Your task to perform on an android device: add a contact in the contacts app Image 0: 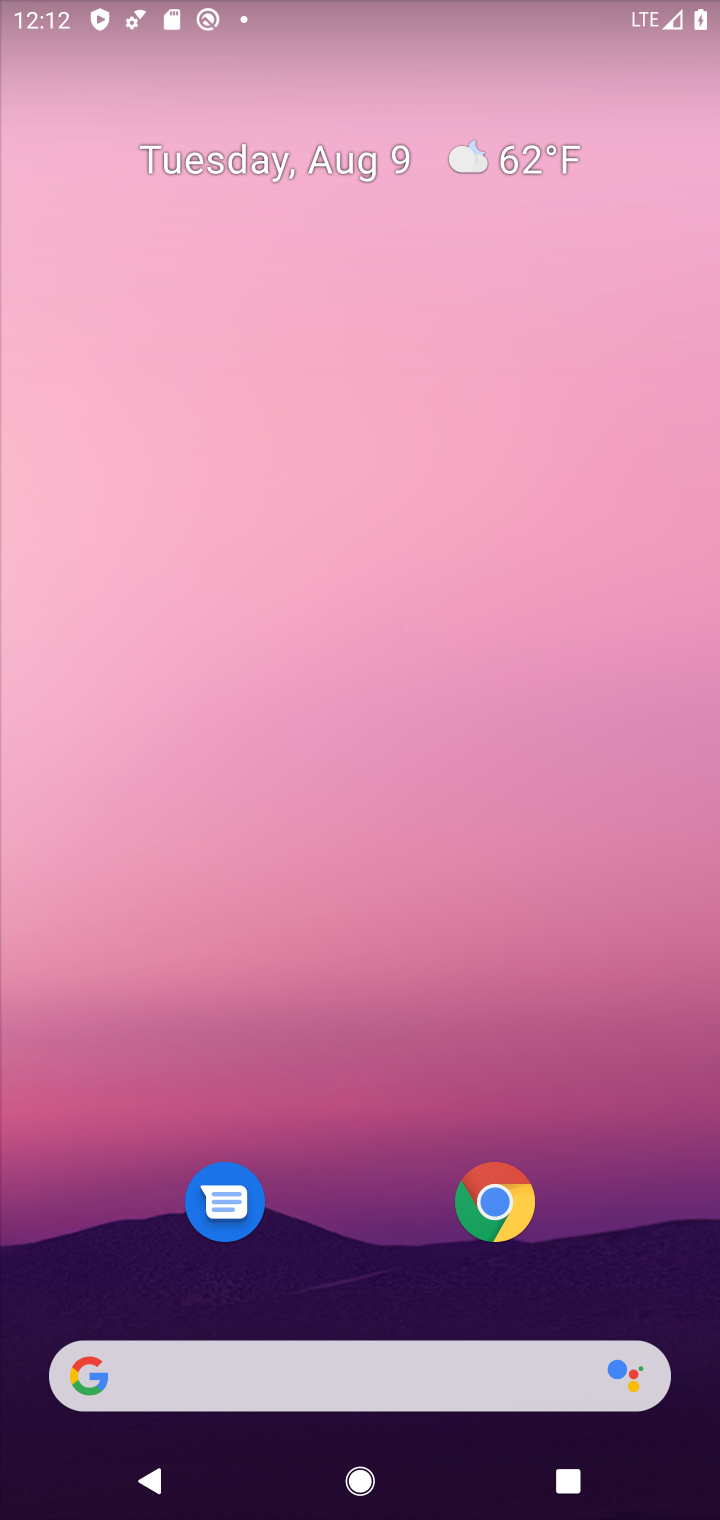
Step 0: drag from (326, 1089) to (222, 363)
Your task to perform on an android device: add a contact in the contacts app Image 1: 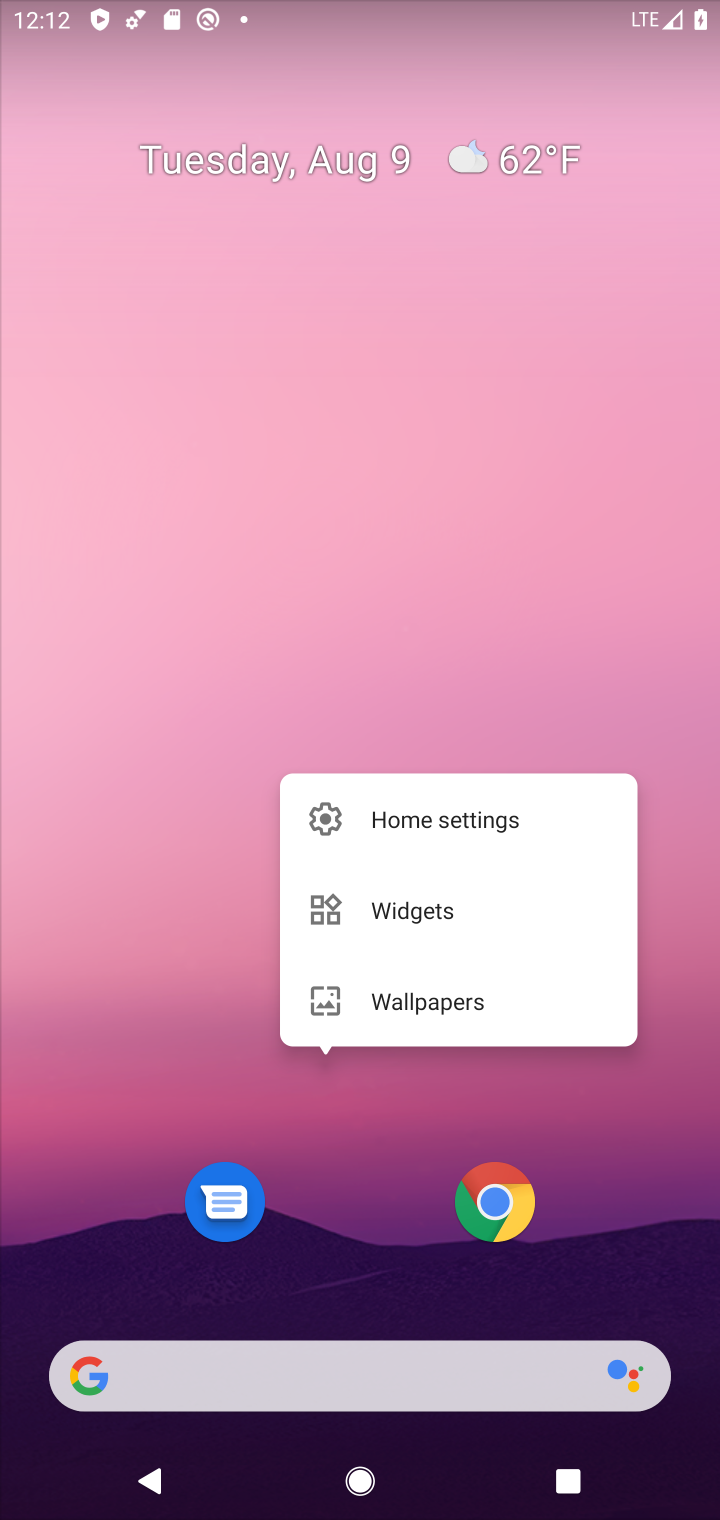
Step 1: click (414, 1237)
Your task to perform on an android device: add a contact in the contacts app Image 2: 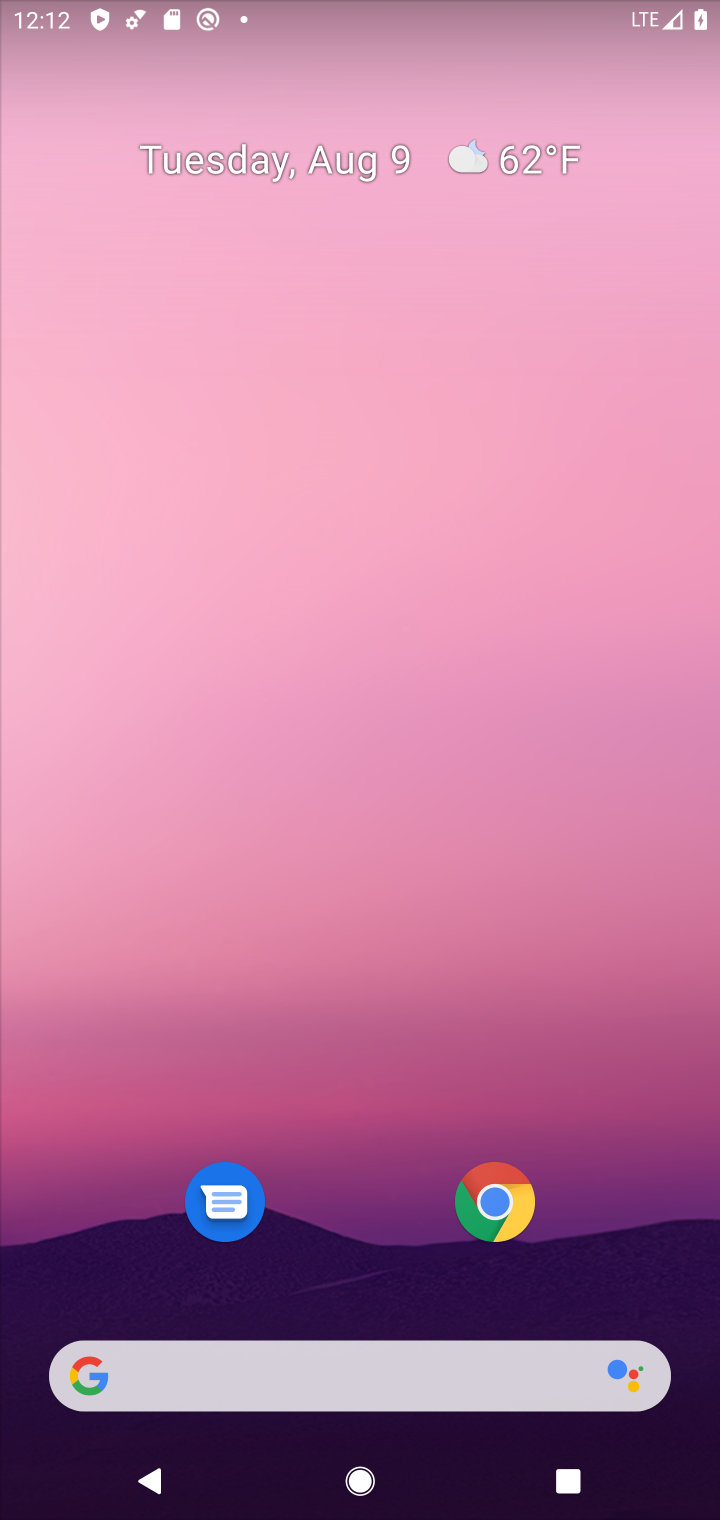
Step 2: drag from (390, 1189) to (218, 33)
Your task to perform on an android device: add a contact in the contacts app Image 3: 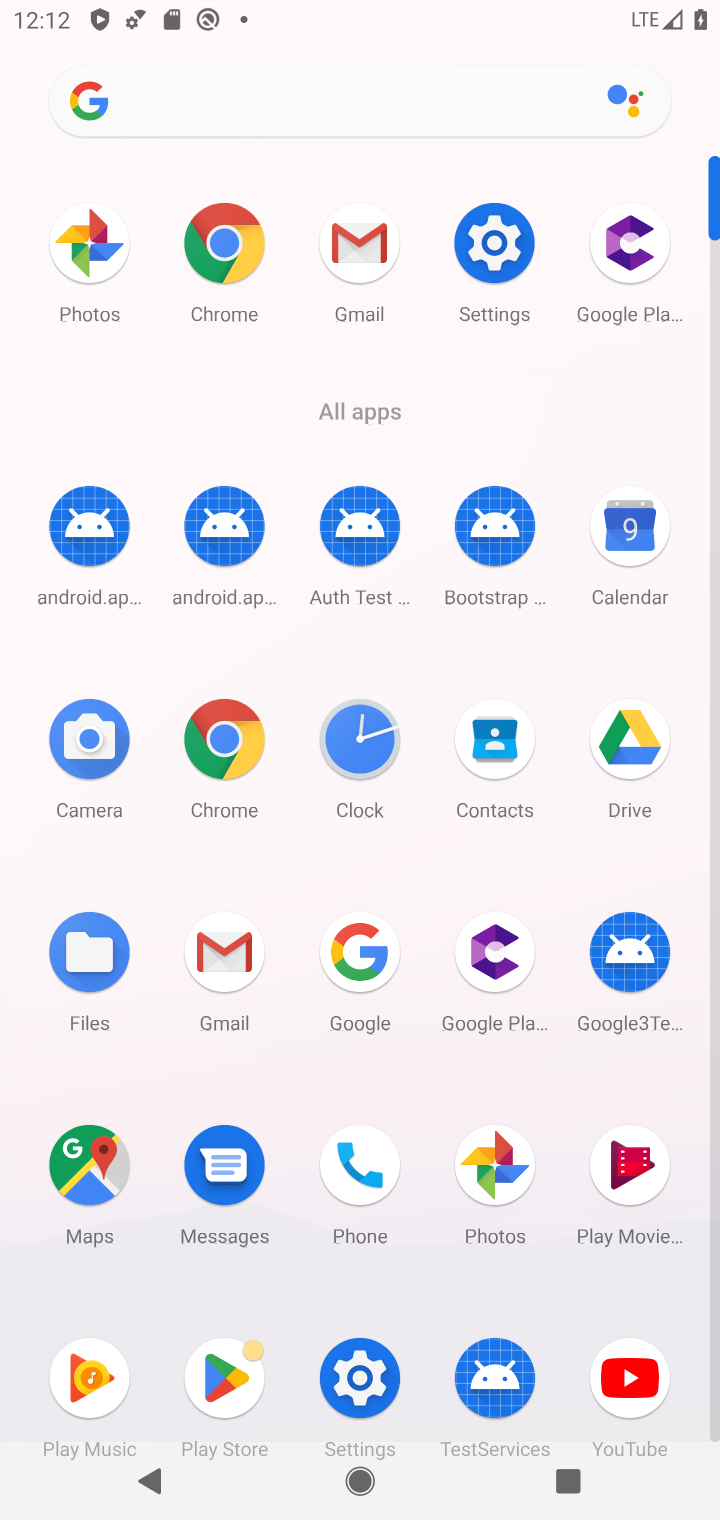
Step 3: click (507, 749)
Your task to perform on an android device: add a contact in the contacts app Image 4: 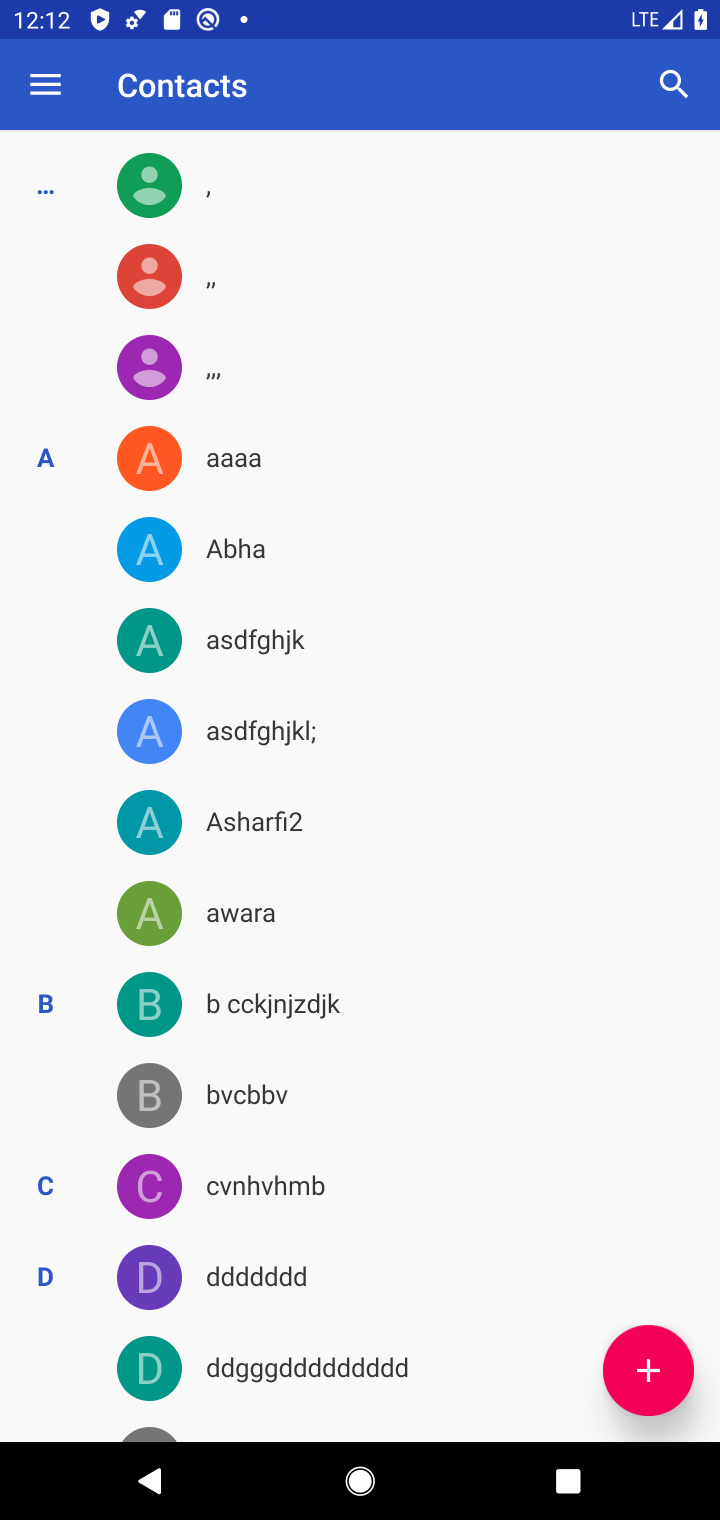
Step 4: click (634, 1364)
Your task to perform on an android device: add a contact in the contacts app Image 5: 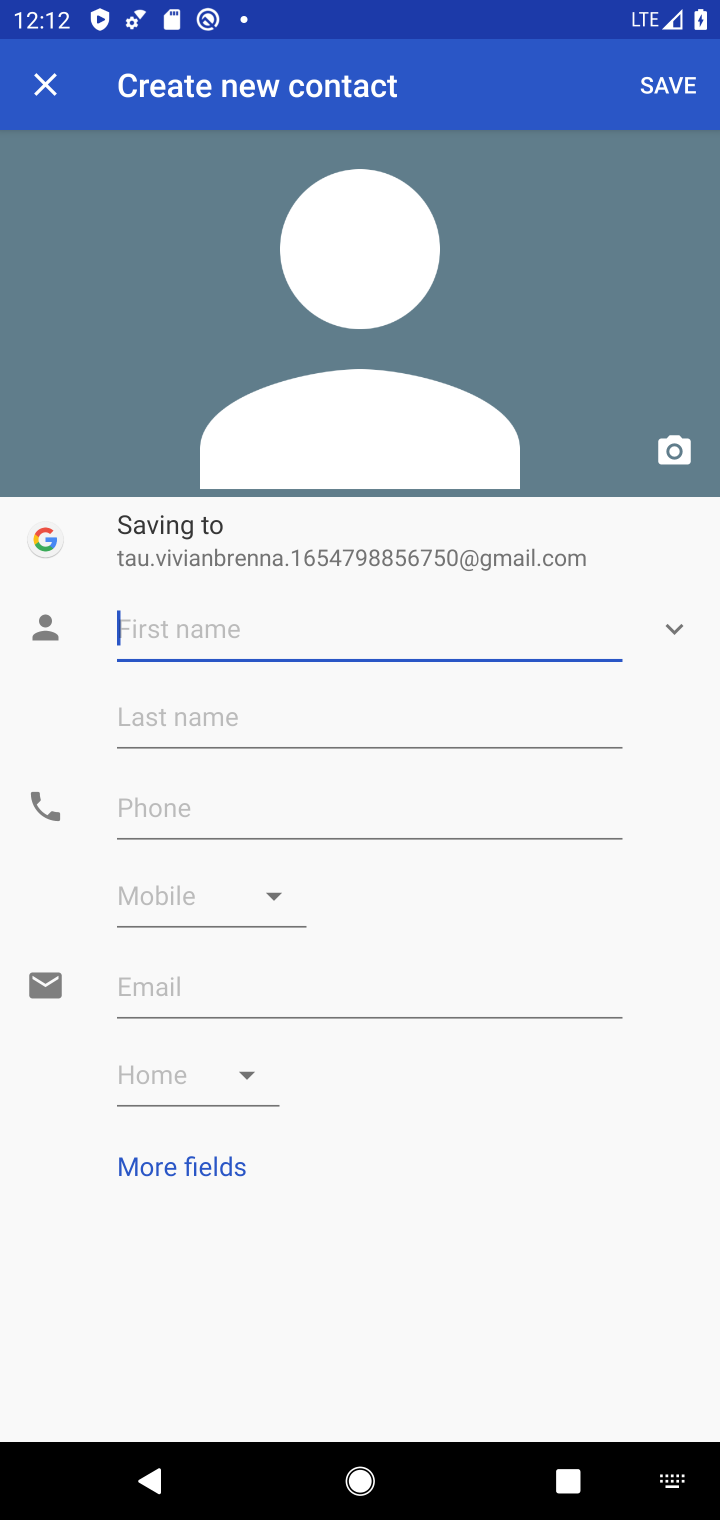
Step 5: type "Namitha"
Your task to perform on an android device: add a contact in the contacts app Image 6: 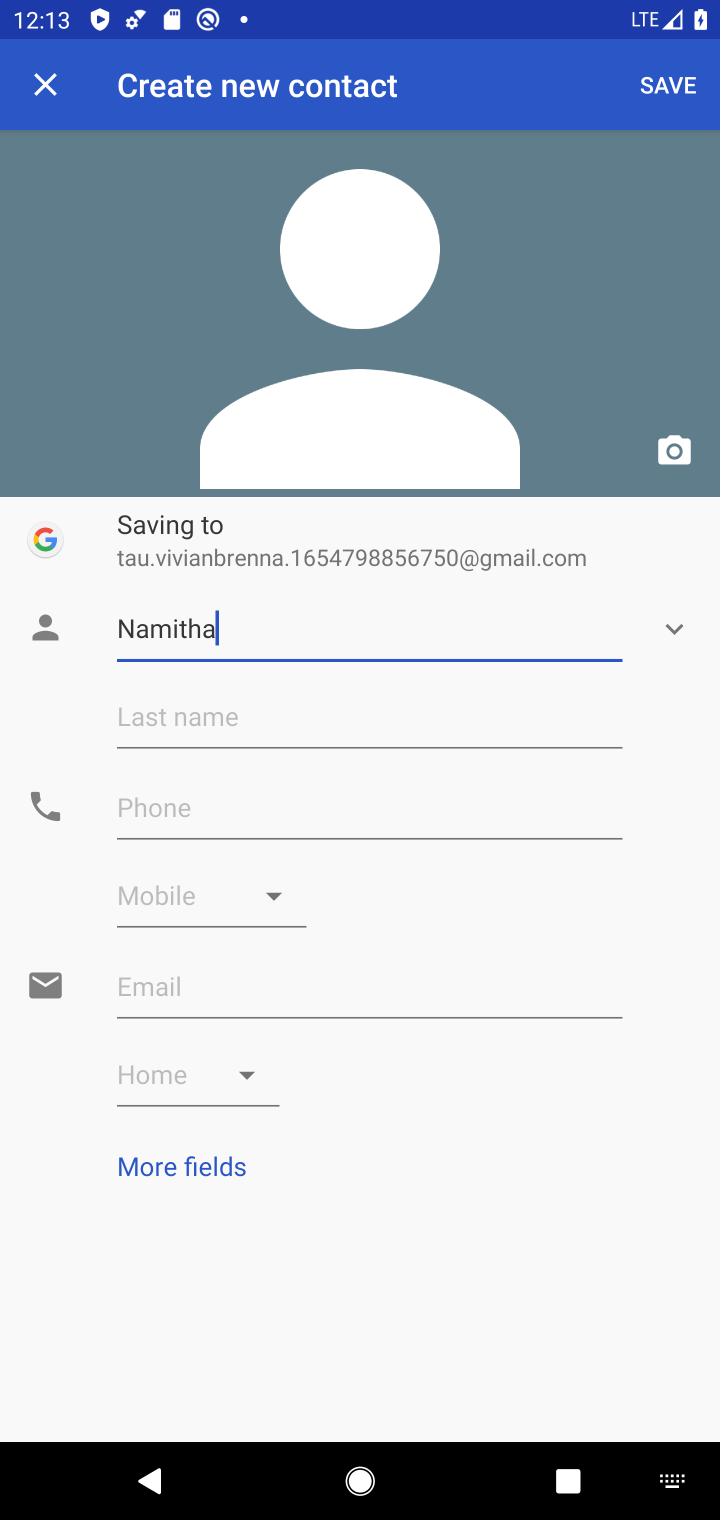
Step 6: click (502, 730)
Your task to perform on an android device: add a contact in the contacts app Image 7: 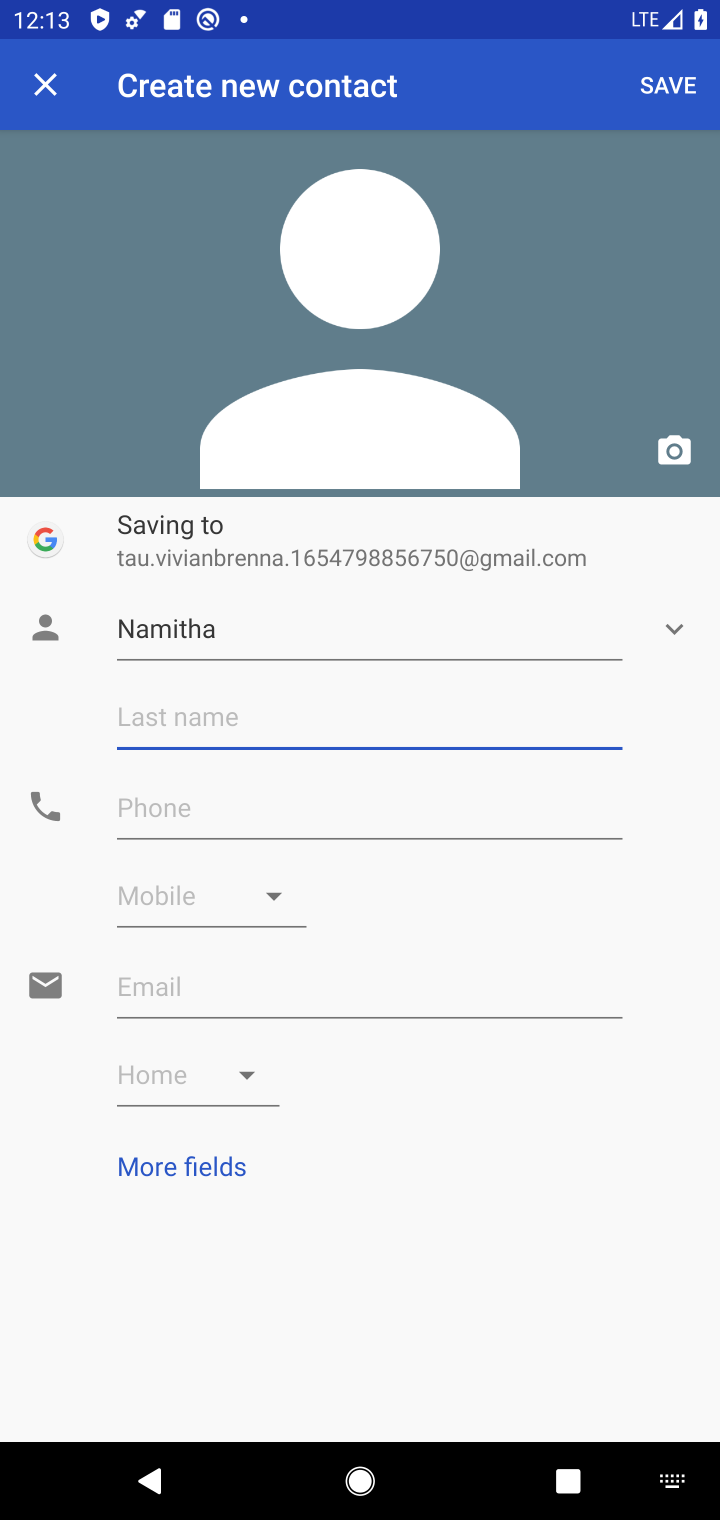
Step 7: click (270, 795)
Your task to perform on an android device: add a contact in the contacts app Image 8: 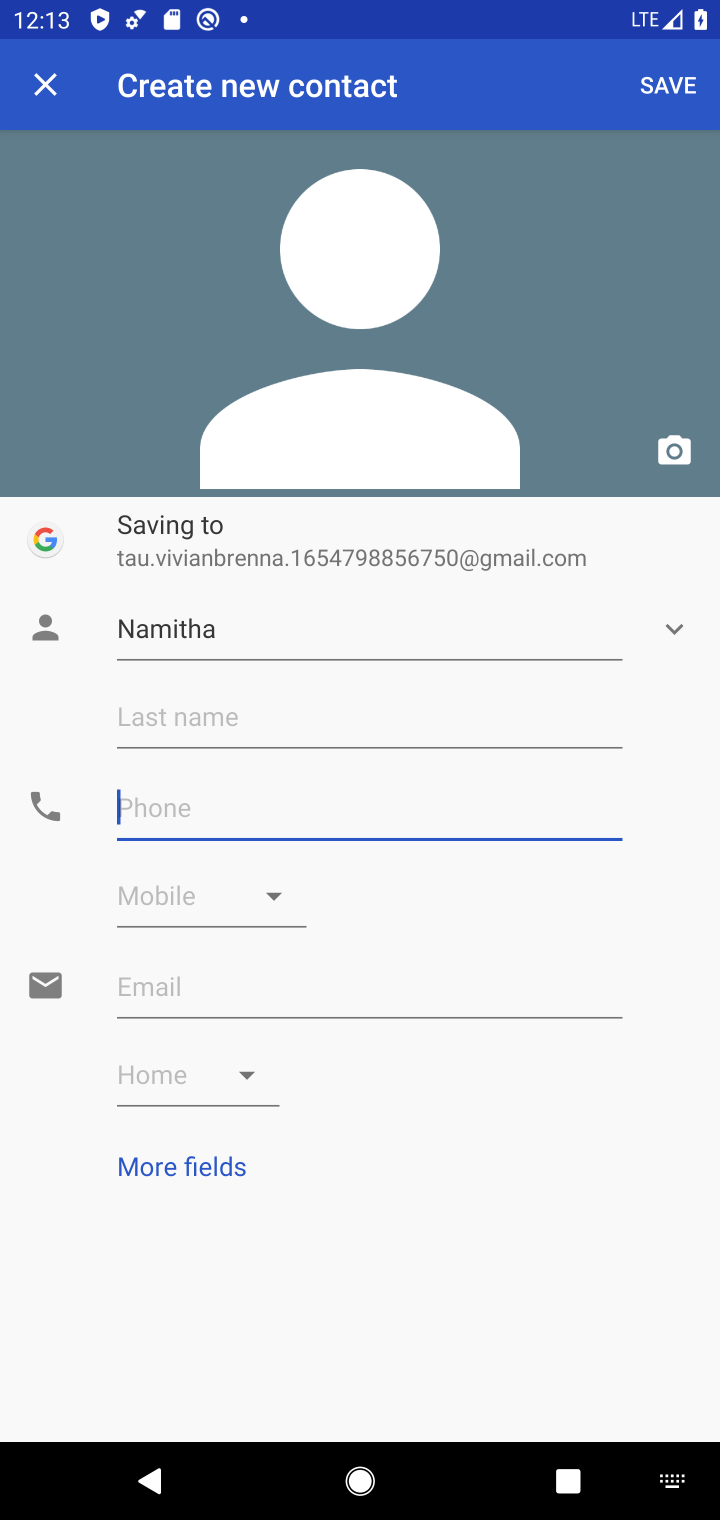
Step 8: type "6789009876"
Your task to perform on an android device: add a contact in the contacts app Image 9: 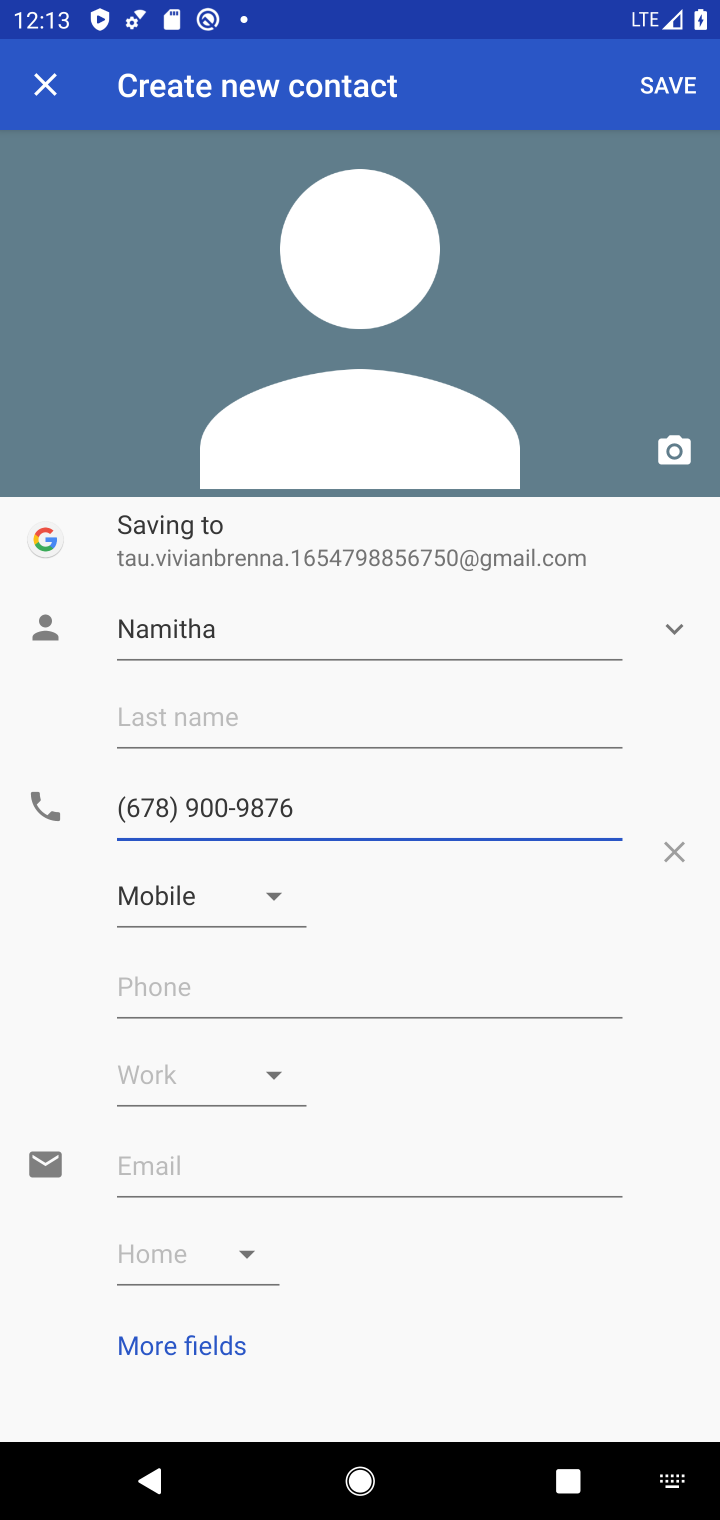
Step 9: click (674, 90)
Your task to perform on an android device: add a contact in the contacts app Image 10: 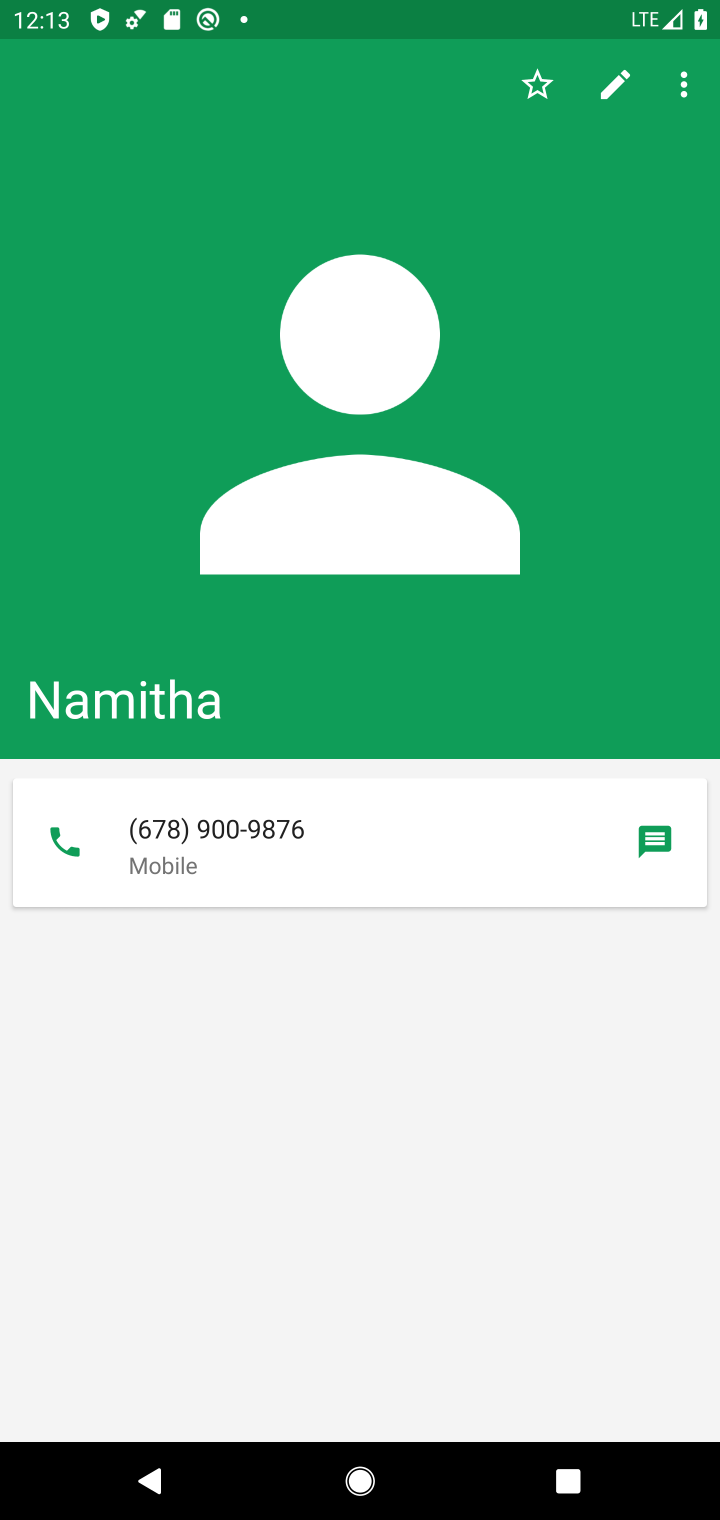
Step 10: task complete